Your task to perform on an android device: toggle pop-ups in chrome Image 0: 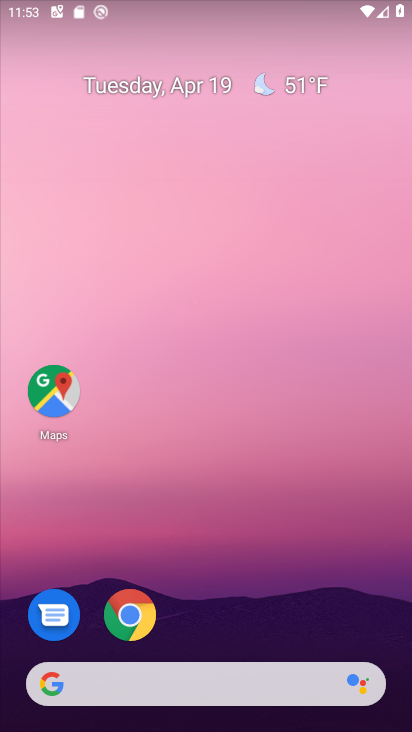
Step 0: click (124, 629)
Your task to perform on an android device: toggle pop-ups in chrome Image 1: 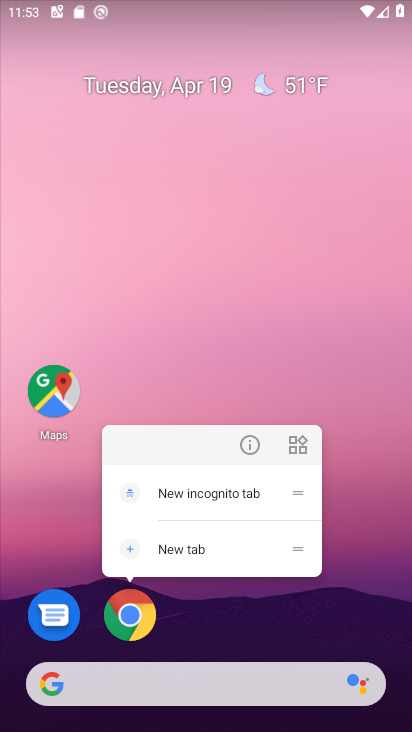
Step 1: click (140, 627)
Your task to perform on an android device: toggle pop-ups in chrome Image 2: 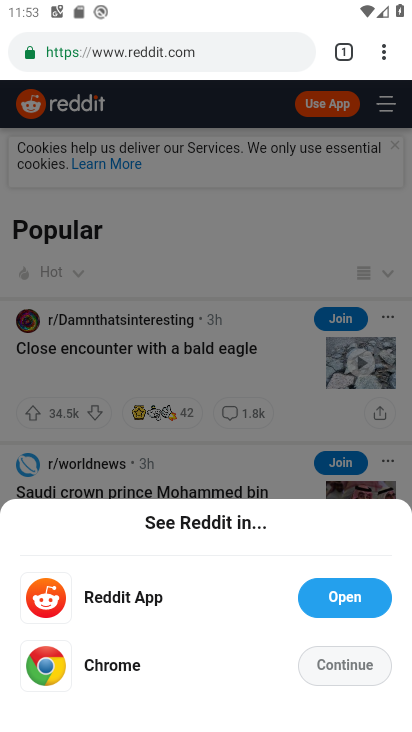
Step 2: drag from (374, 51) to (214, 625)
Your task to perform on an android device: toggle pop-ups in chrome Image 3: 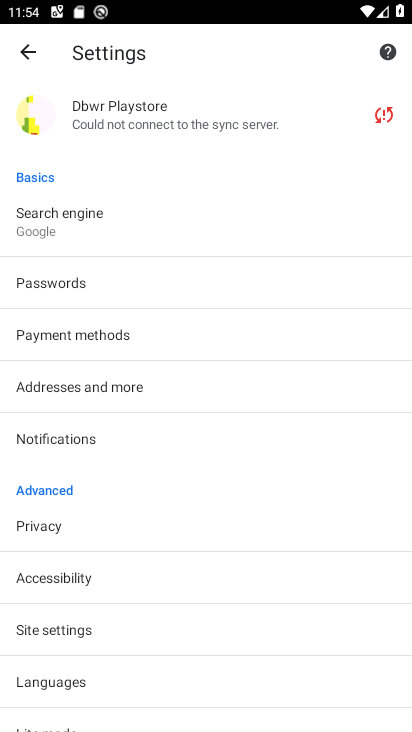
Step 3: click (71, 626)
Your task to perform on an android device: toggle pop-ups in chrome Image 4: 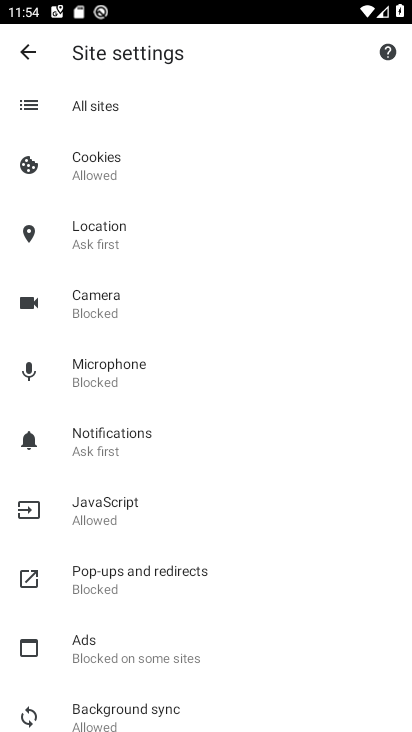
Step 4: click (122, 570)
Your task to perform on an android device: toggle pop-ups in chrome Image 5: 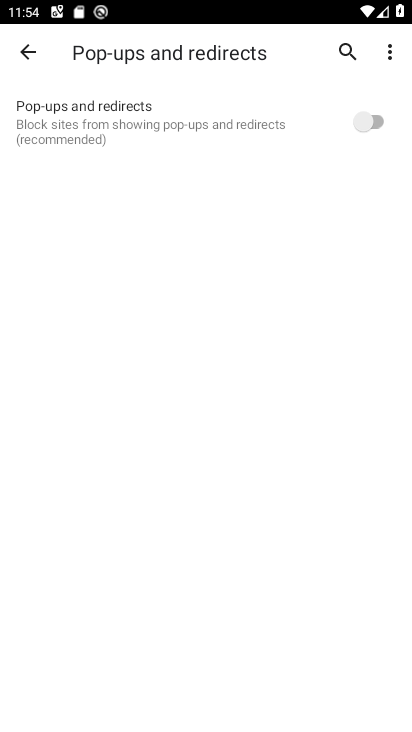
Step 5: click (359, 117)
Your task to perform on an android device: toggle pop-ups in chrome Image 6: 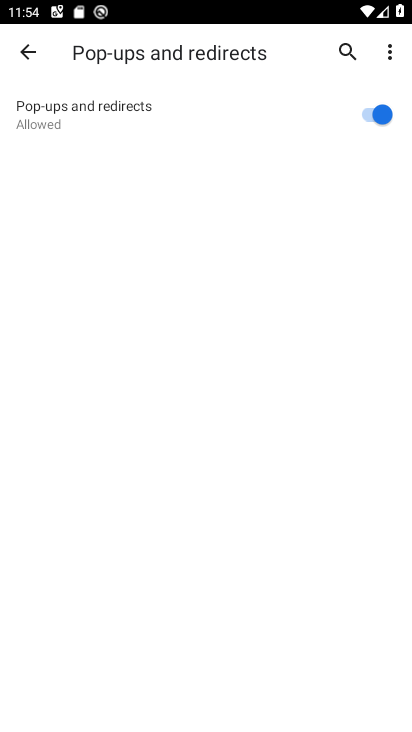
Step 6: task complete